Your task to perform on an android device: install app "Reddit" Image 0: 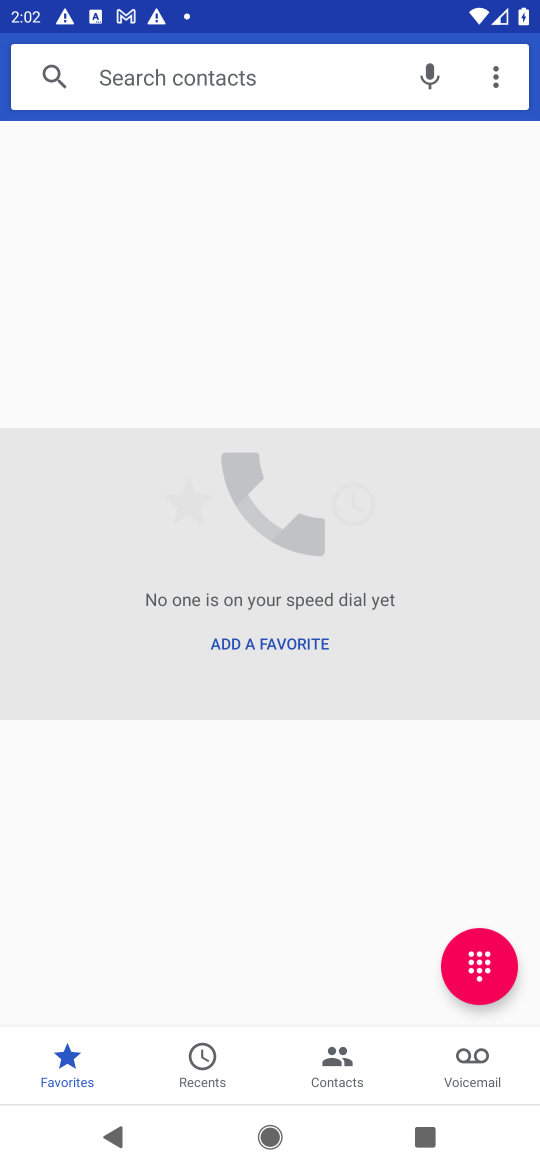
Step 0: press home button
Your task to perform on an android device: install app "Reddit" Image 1: 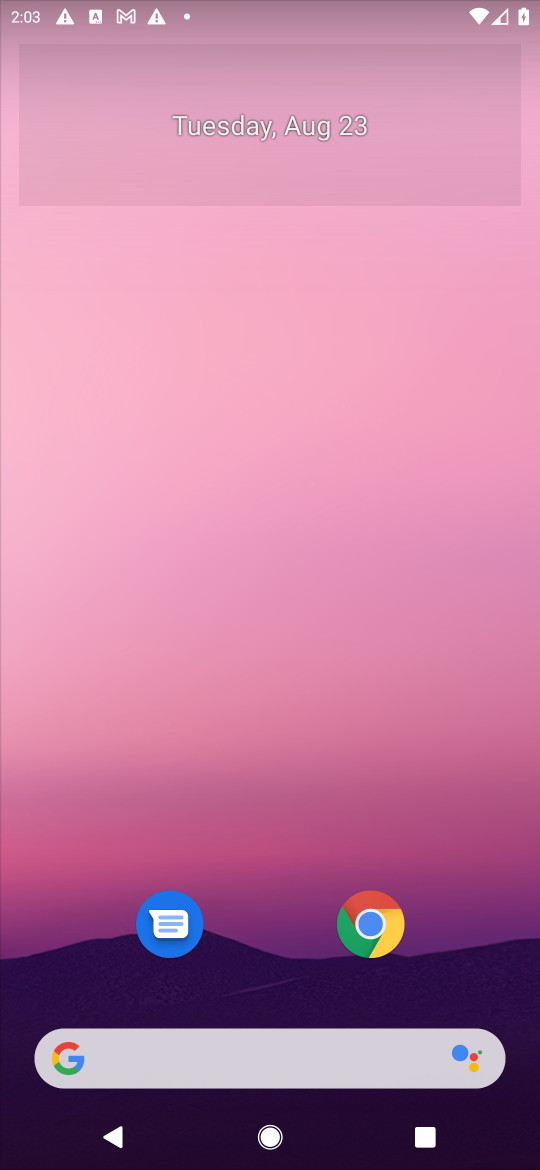
Step 1: drag from (463, 992) to (460, 109)
Your task to perform on an android device: install app "Reddit" Image 2: 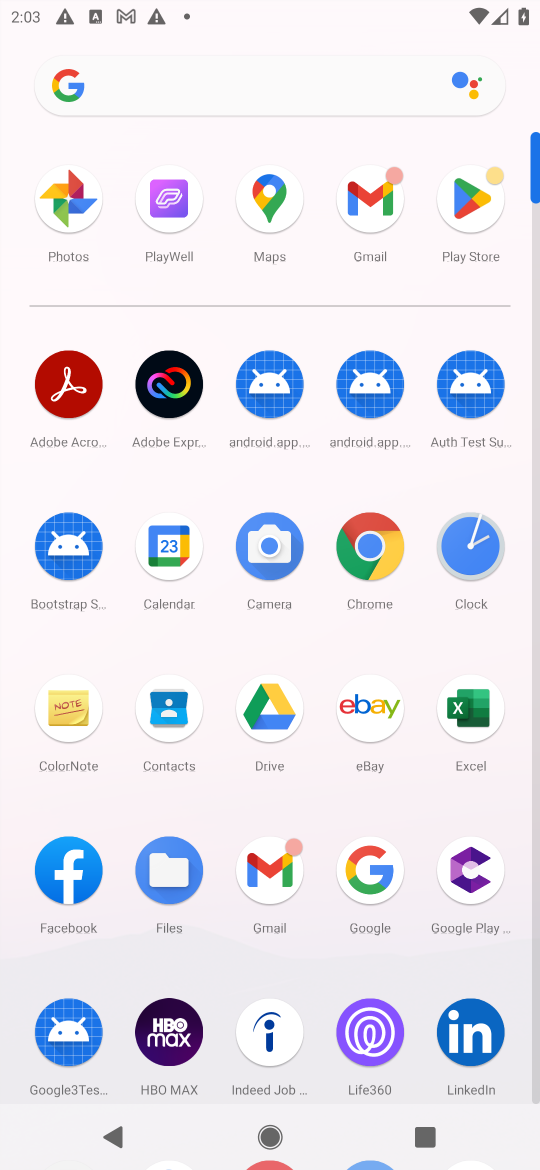
Step 2: click (471, 202)
Your task to perform on an android device: install app "Reddit" Image 3: 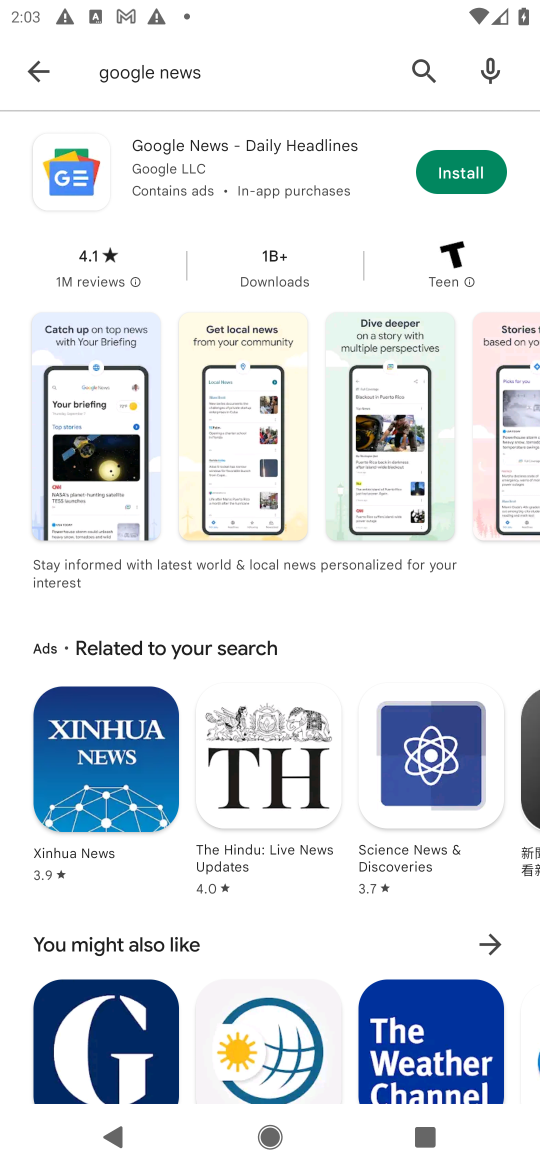
Step 3: press back button
Your task to perform on an android device: install app "Reddit" Image 4: 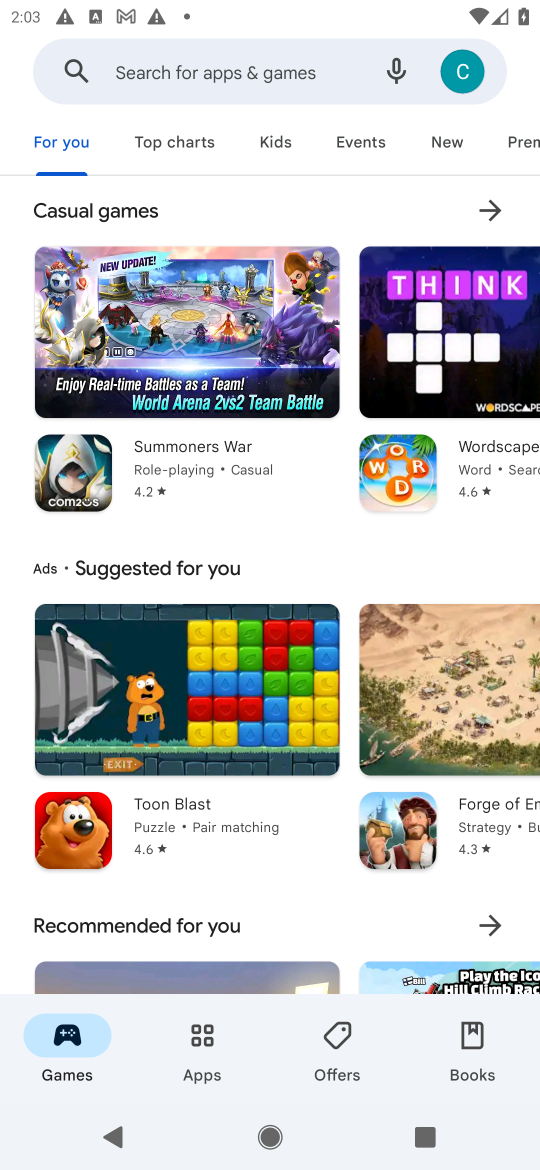
Step 4: click (224, 71)
Your task to perform on an android device: install app "Reddit" Image 5: 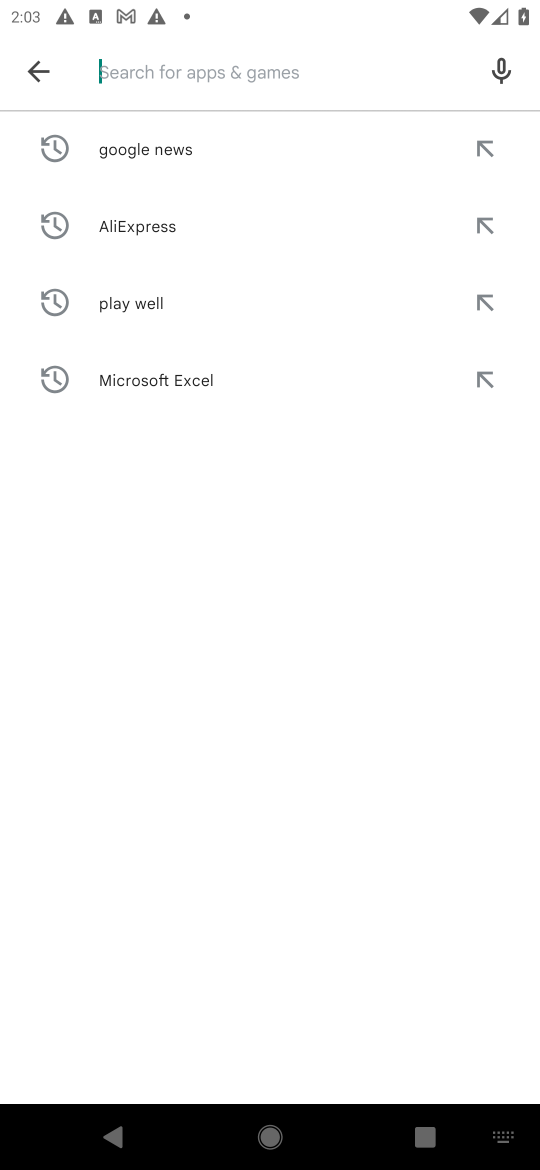
Step 5: type "reddit"
Your task to perform on an android device: install app "Reddit" Image 6: 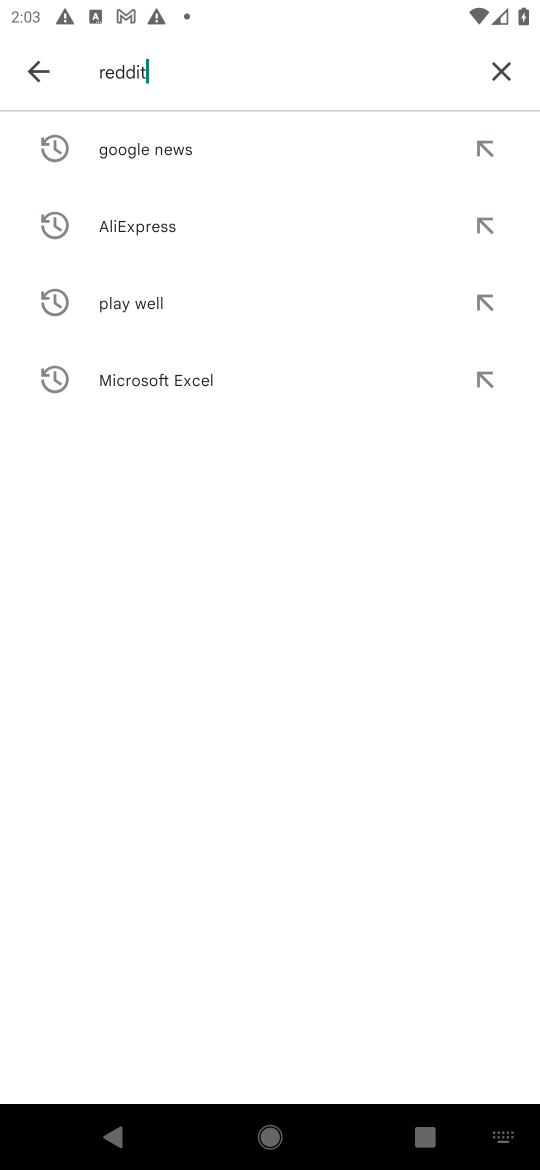
Step 6: press enter
Your task to perform on an android device: install app "Reddit" Image 7: 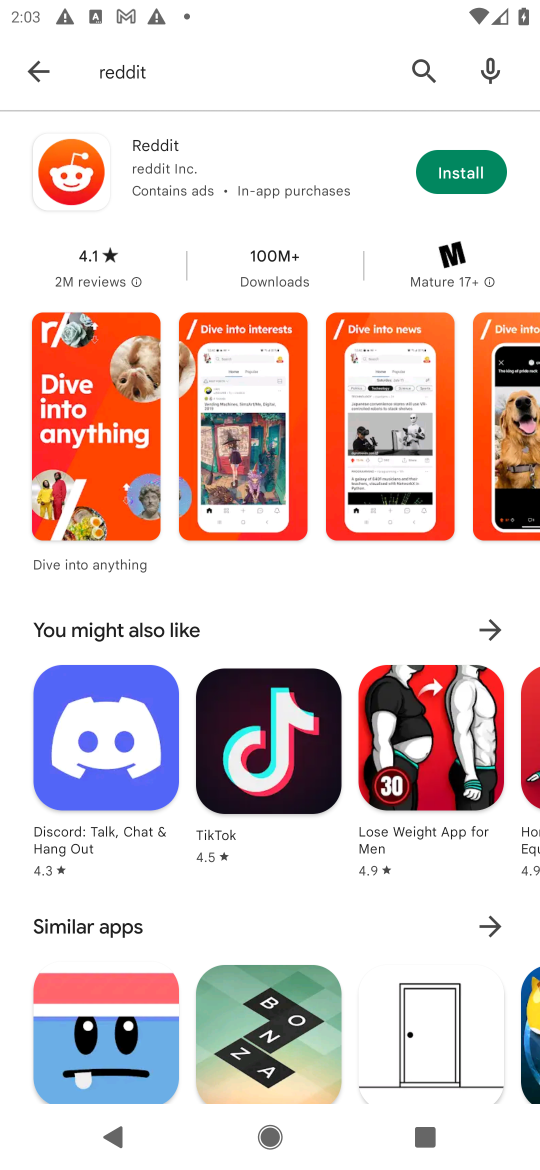
Step 7: click (463, 167)
Your task to perform on an android device: install app "Reddit" Image 8: 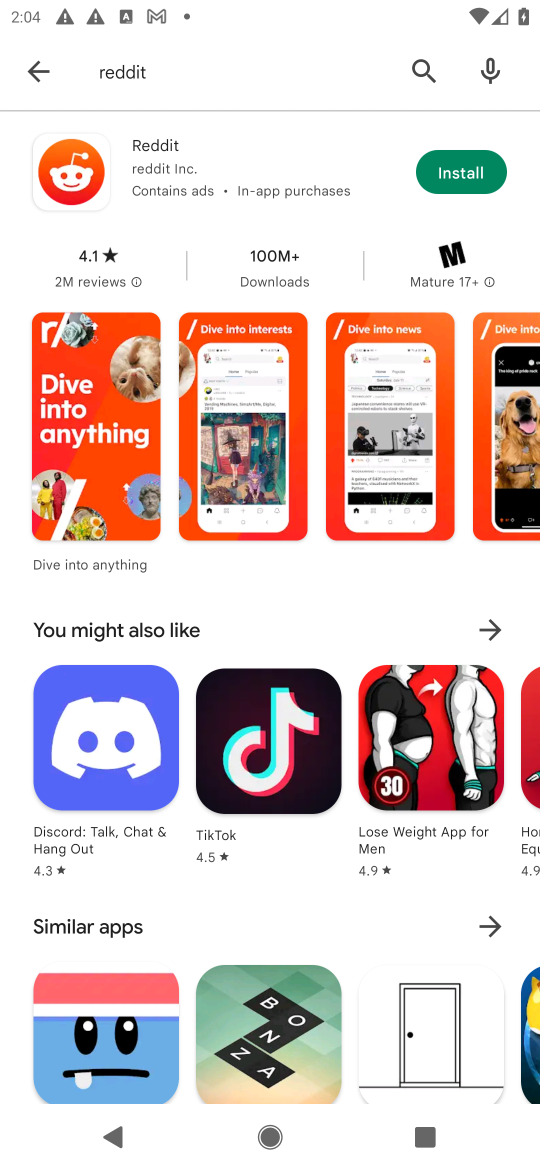
Step 8: click (450, 170)
Your task to perform on an android device: install app "Reddit" Image 9: 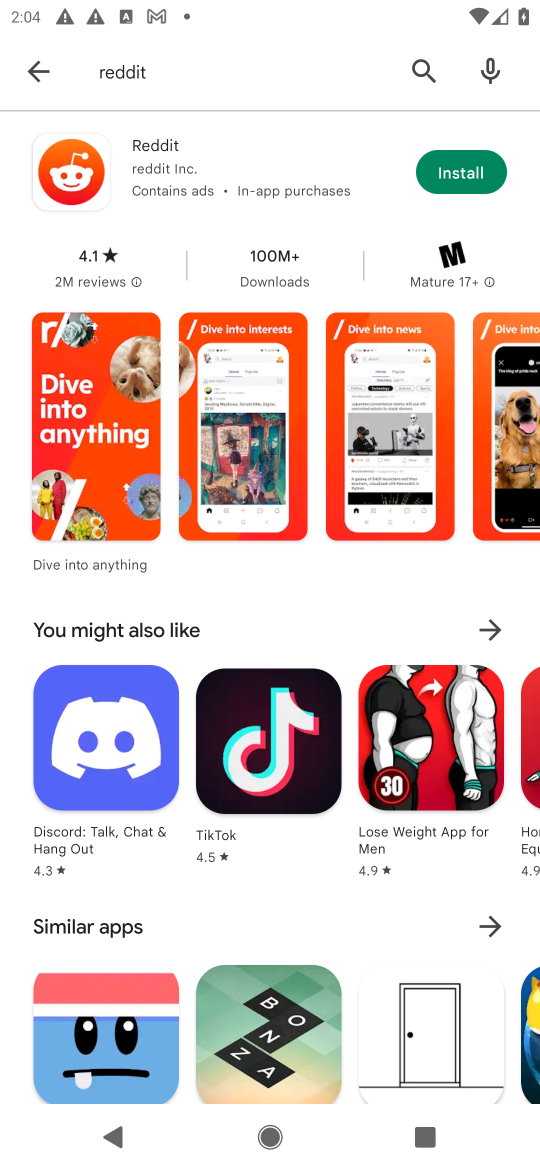
Step 9: task complete